Your task to perform on an android device: Show me recent news Image 0: 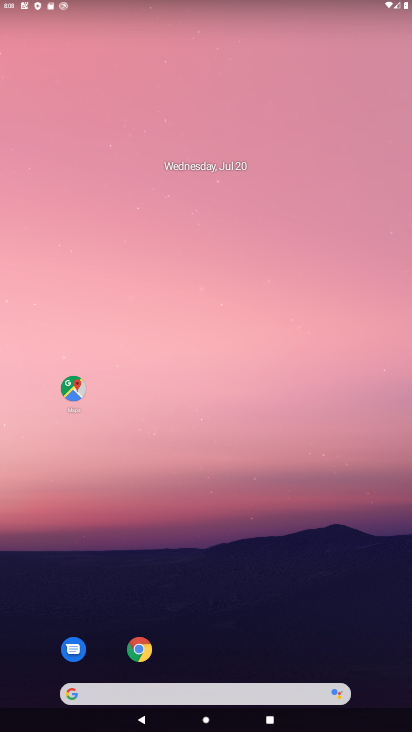
Step 0: drag from (247, 674) to (247, 393)
Your task to perform on an android device: Show me recent news Image 1: 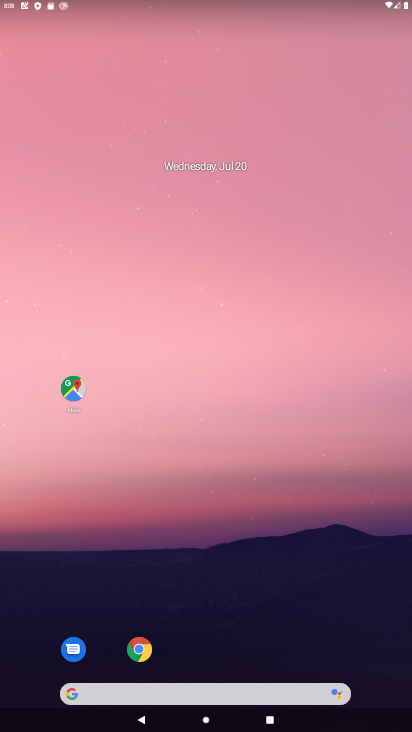
Step 1: drag from (247, 662) to (265, 330)
Your task to perform on an android device: Show me recent news Image 2: 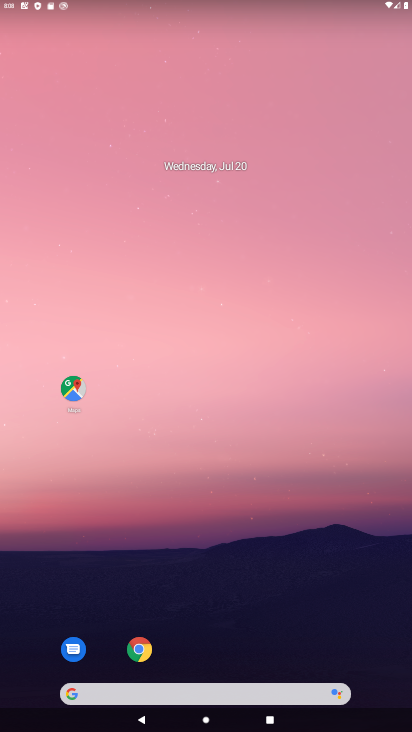
Step 2: drag from (209, 653) to (270, 190)
Your task to perform on an android device: Show me recent news Image 3: 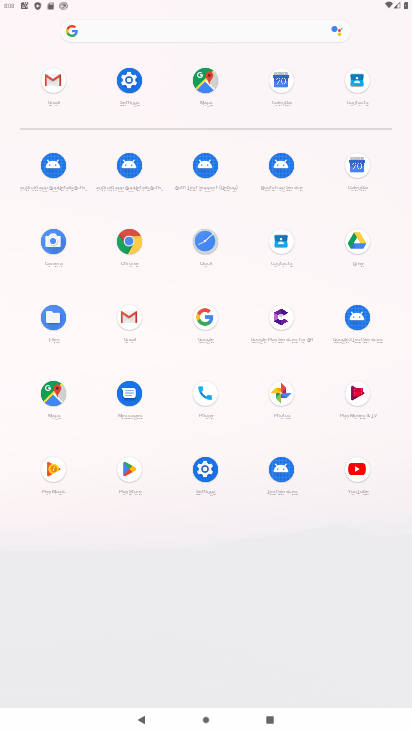
Step 3: click (190, 20)
Your task to perform on an android device: Show me recent news Image 4: 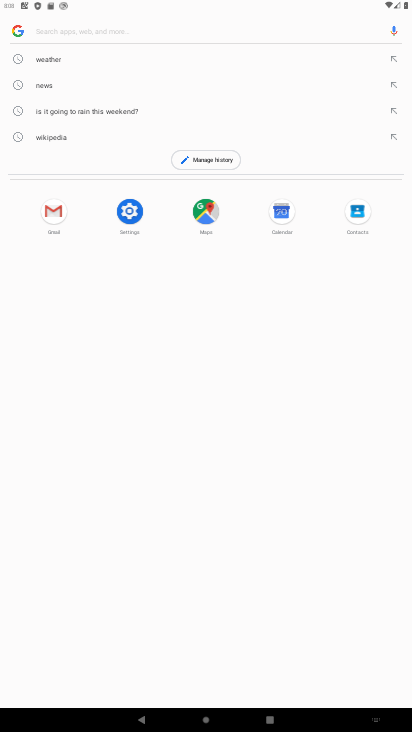
Step 4: click (92, 81)
Your task to perform on an android device: Show me recent news Image 5: 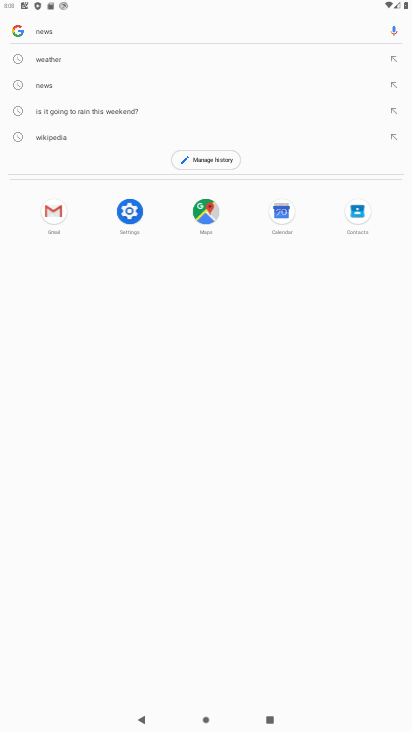
Step 5: task complete